Your task to perform on an android device: delete browsing data in the chrome app Image 0: 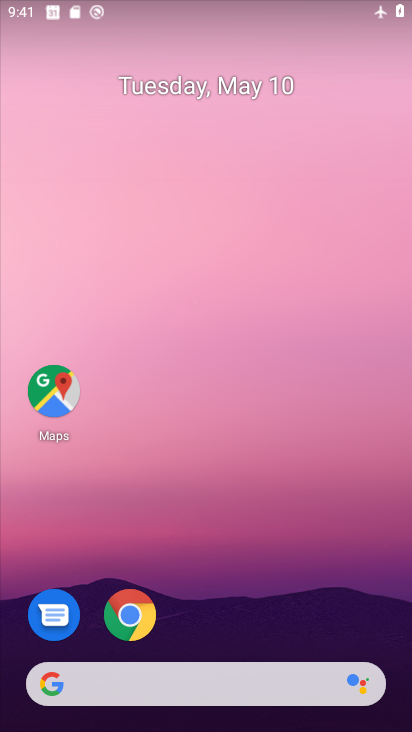
Step 0: drag from (213, 649) to (268, 243)
Your task to perform on an android device: delete browsing data in the chrome app Image 1: 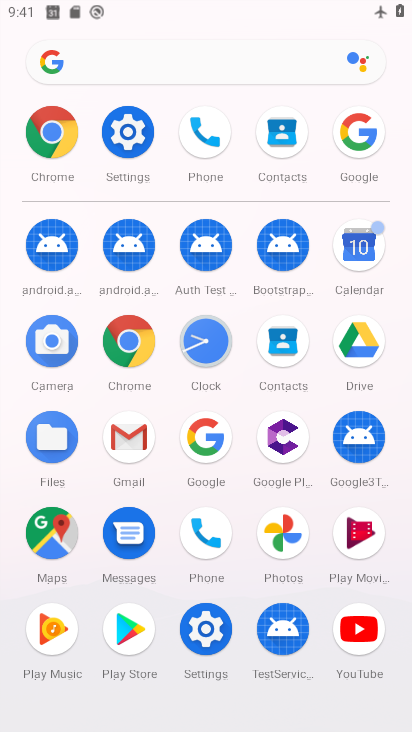
Step 1: click (117, 343)
Your task to perform on an android device: delete browsing data in the chrome app Image 2: 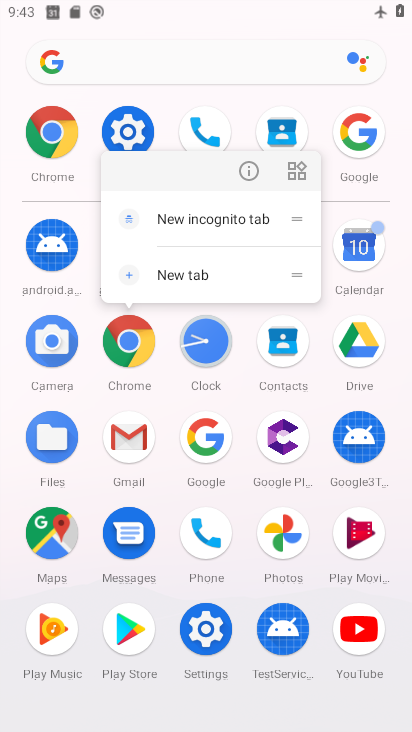
Step 2: click (142, 443)
Your task to perform on an android device: delete browsing data in the chrome app Image 3: 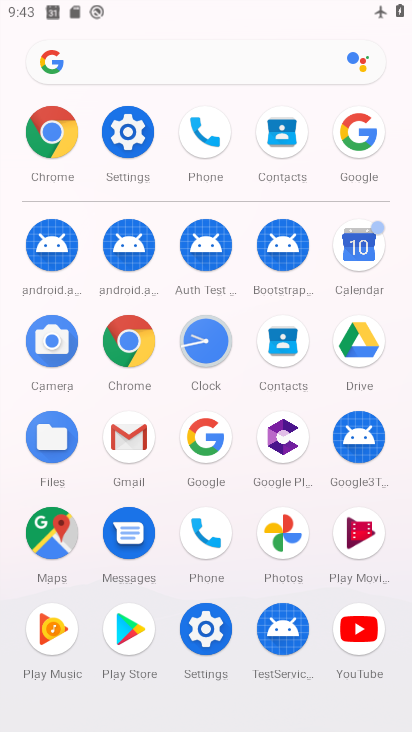
Step 3: click (131, 351)
Your task to perform on an android device: delete browsing data in the chrome app Image 4: 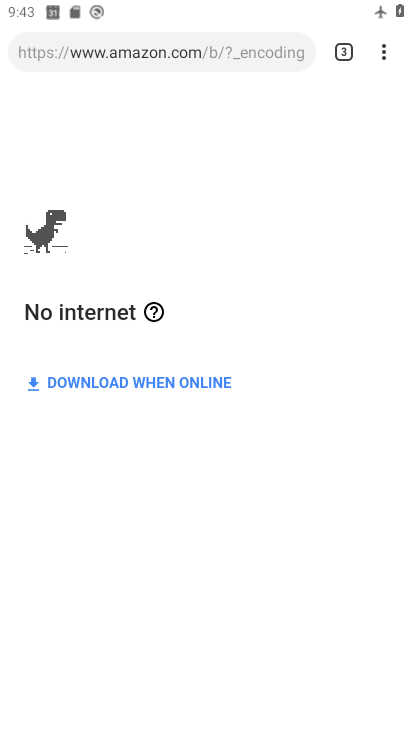
Step 4: click (380, 58)
Your task to perform on an android device: delete browsing data in the chrome app Image 5: 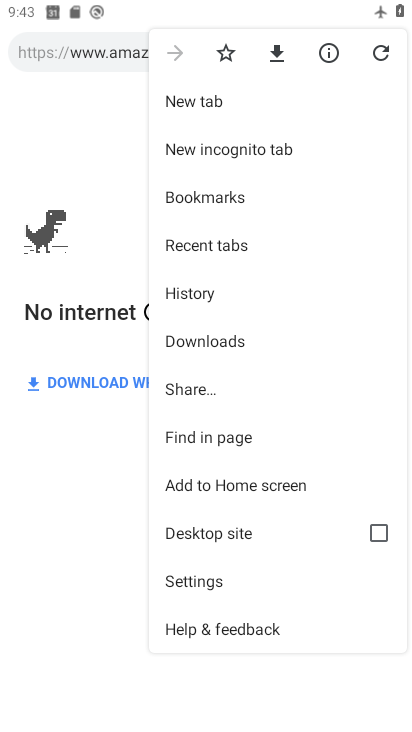
Step 5: click (184, 306)
Your task to perform on an android device: delete browsing data in the chrome app Image 6: 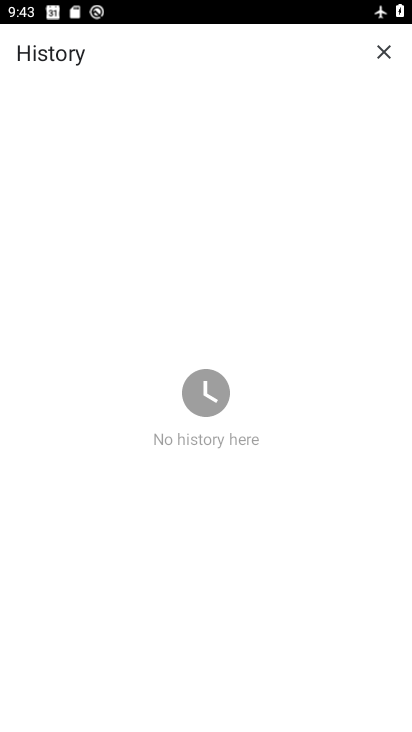
Step 6: task complete